Your task to perform on an android device: Go to eBay Image 0: 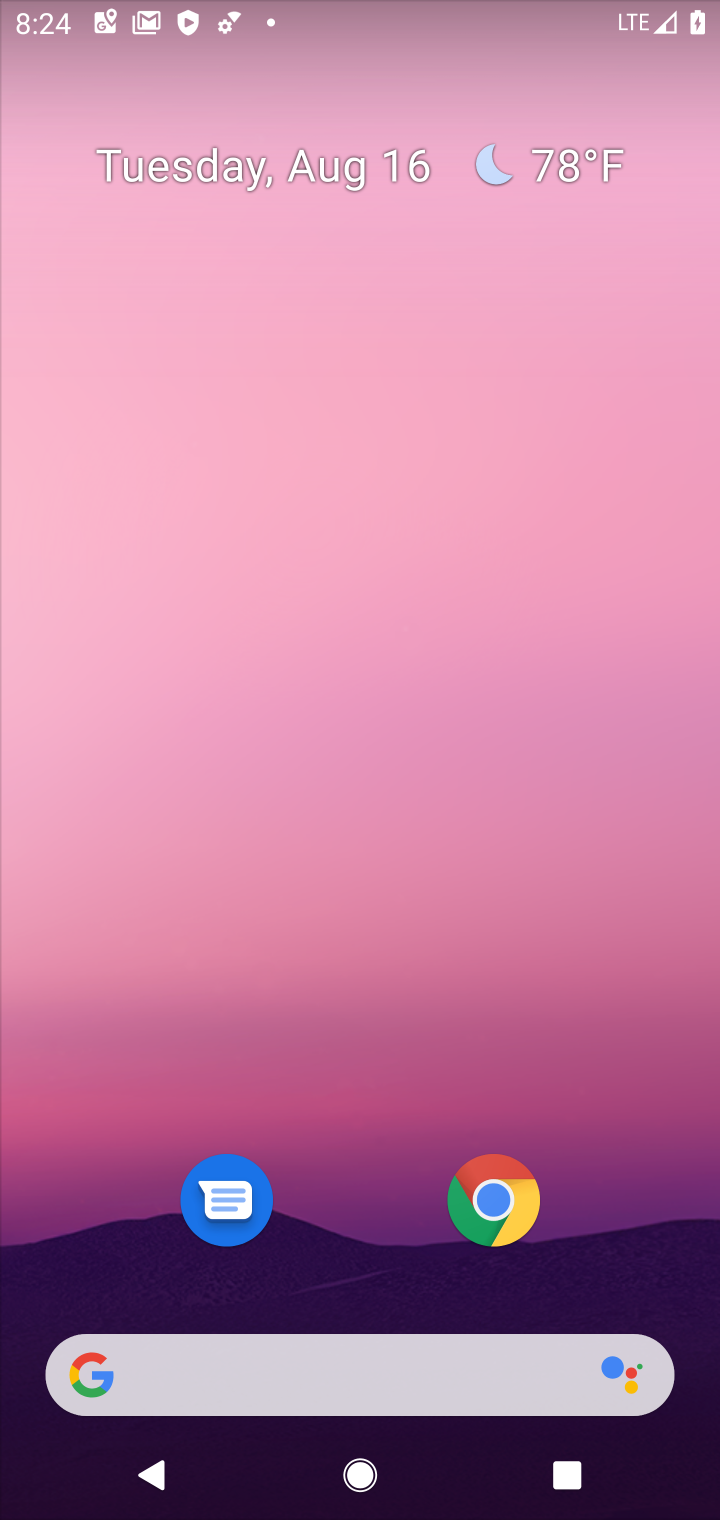
Step 0: click (493, 1198)
Your task to perform on an android device: Go to eBay Image 1: 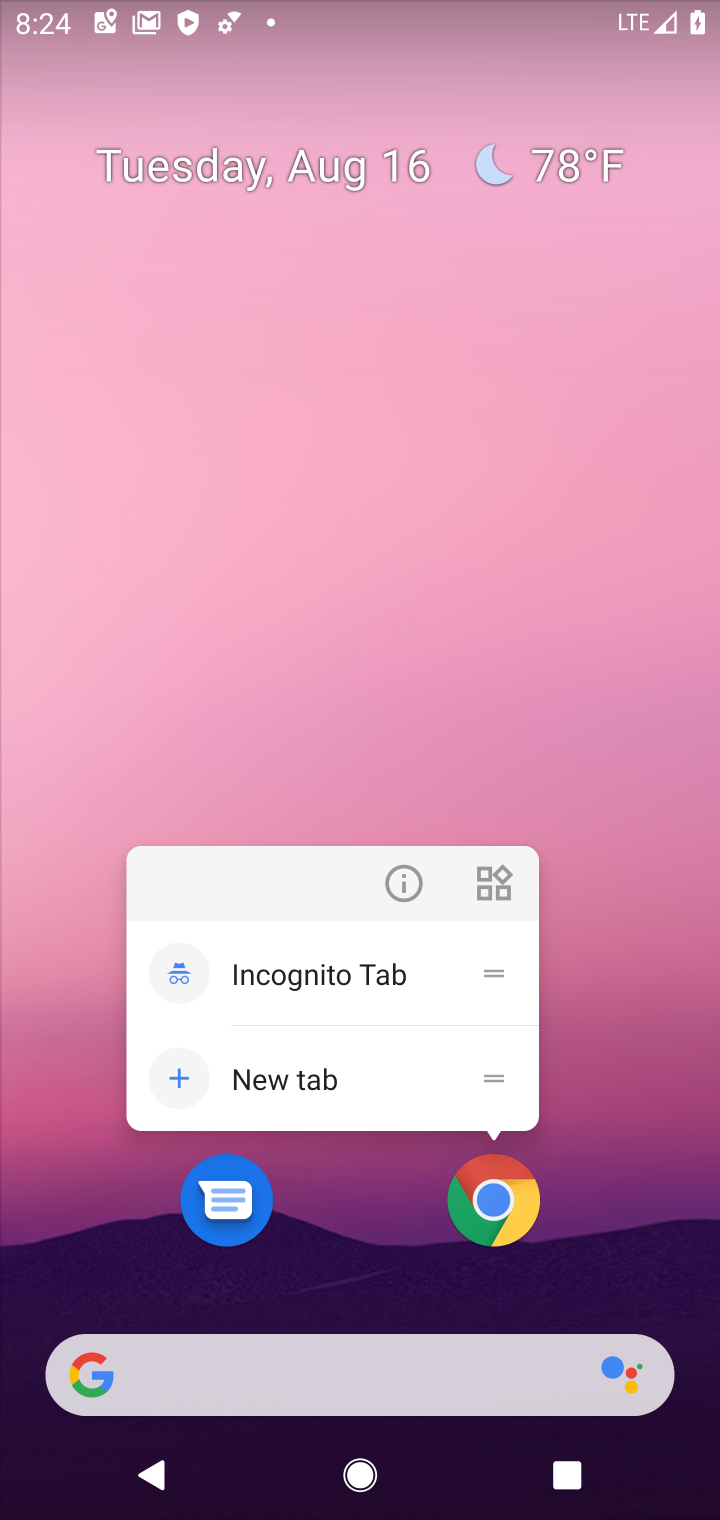
Step 1: click (488, 1204)
Your task to perform on an android device: Go to eBay Image 2: 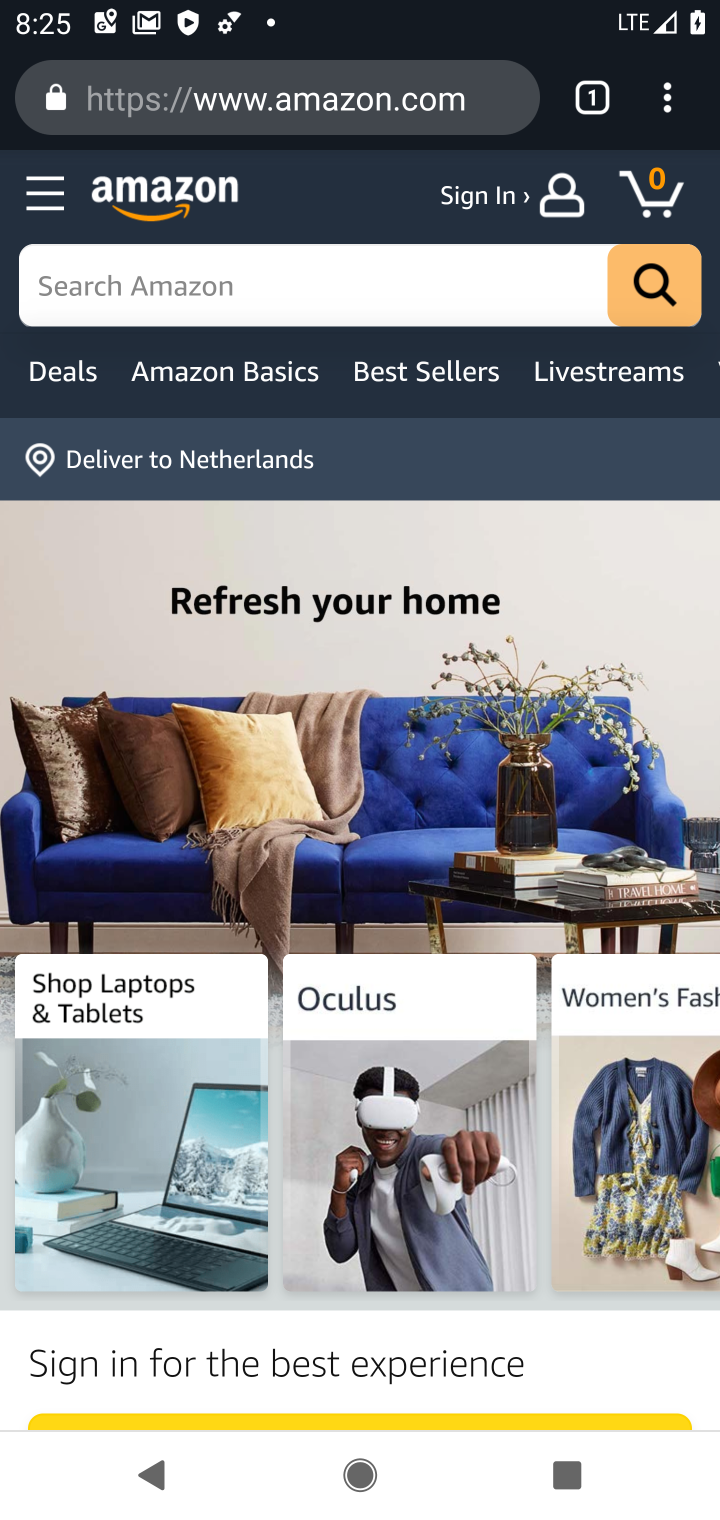
Step 2: click (509, 93)
Your task to perform on an android device: Go to eBay Image 3: 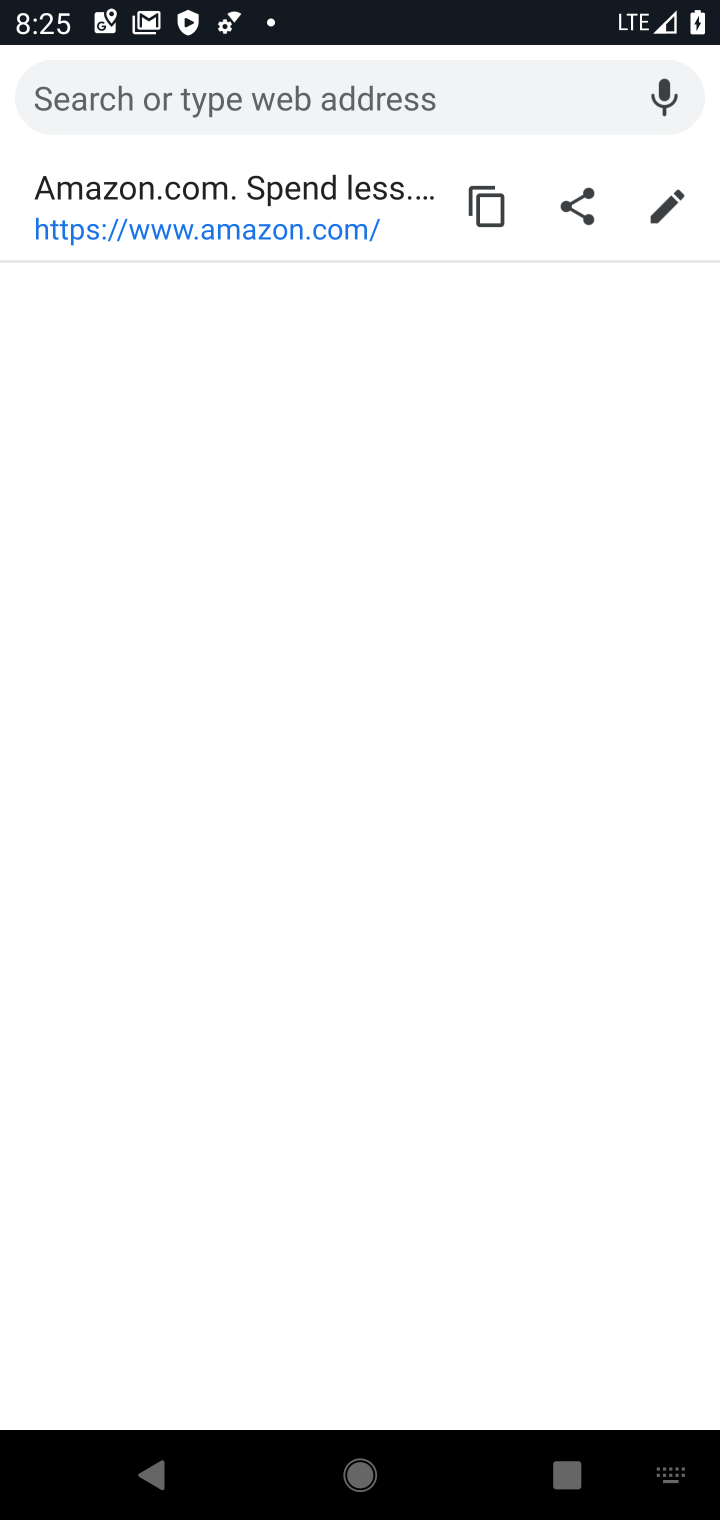
Step 3: type "eBay"
Your task to perform on an android device: Go to eBay Image 4: 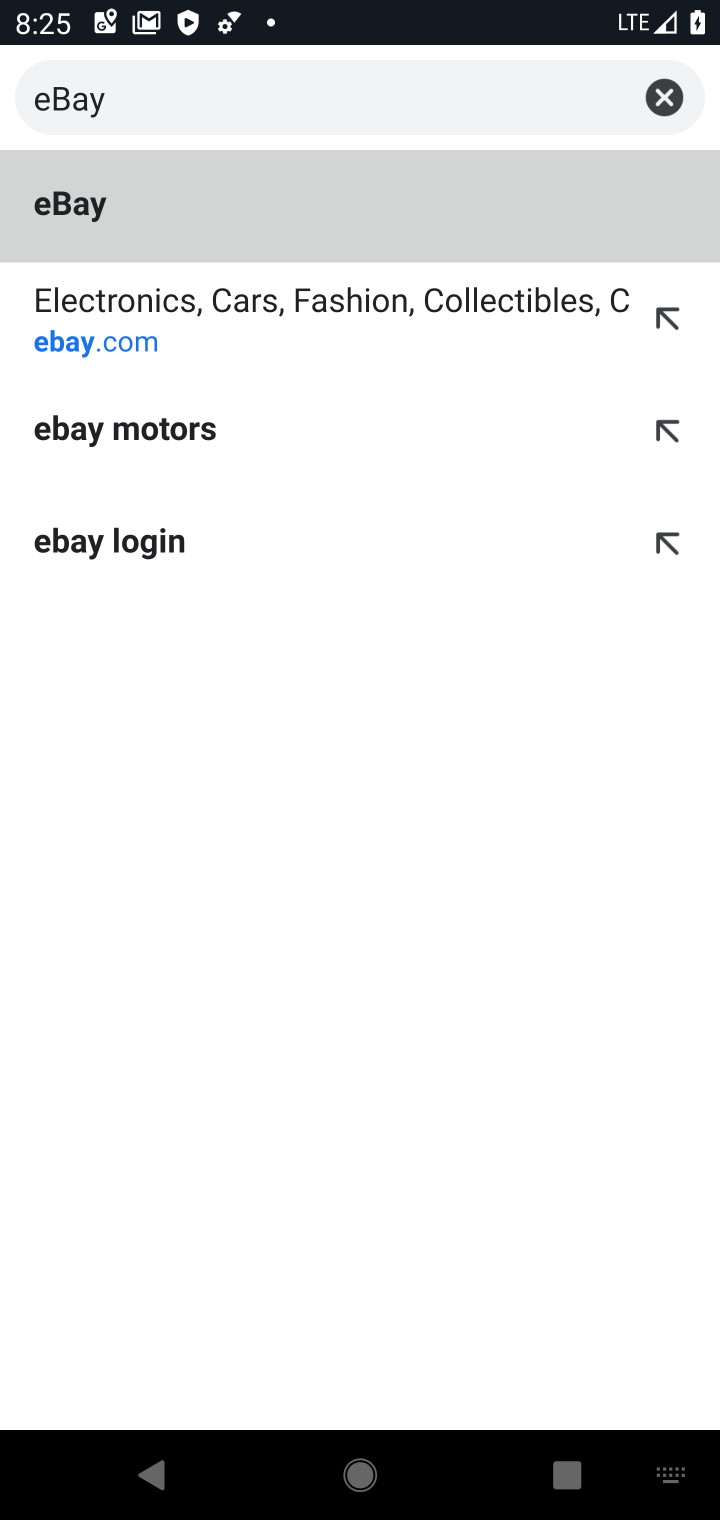
Step 4: click (170, 317)
Your task to perform on an android device: Go to eBay Image 5: 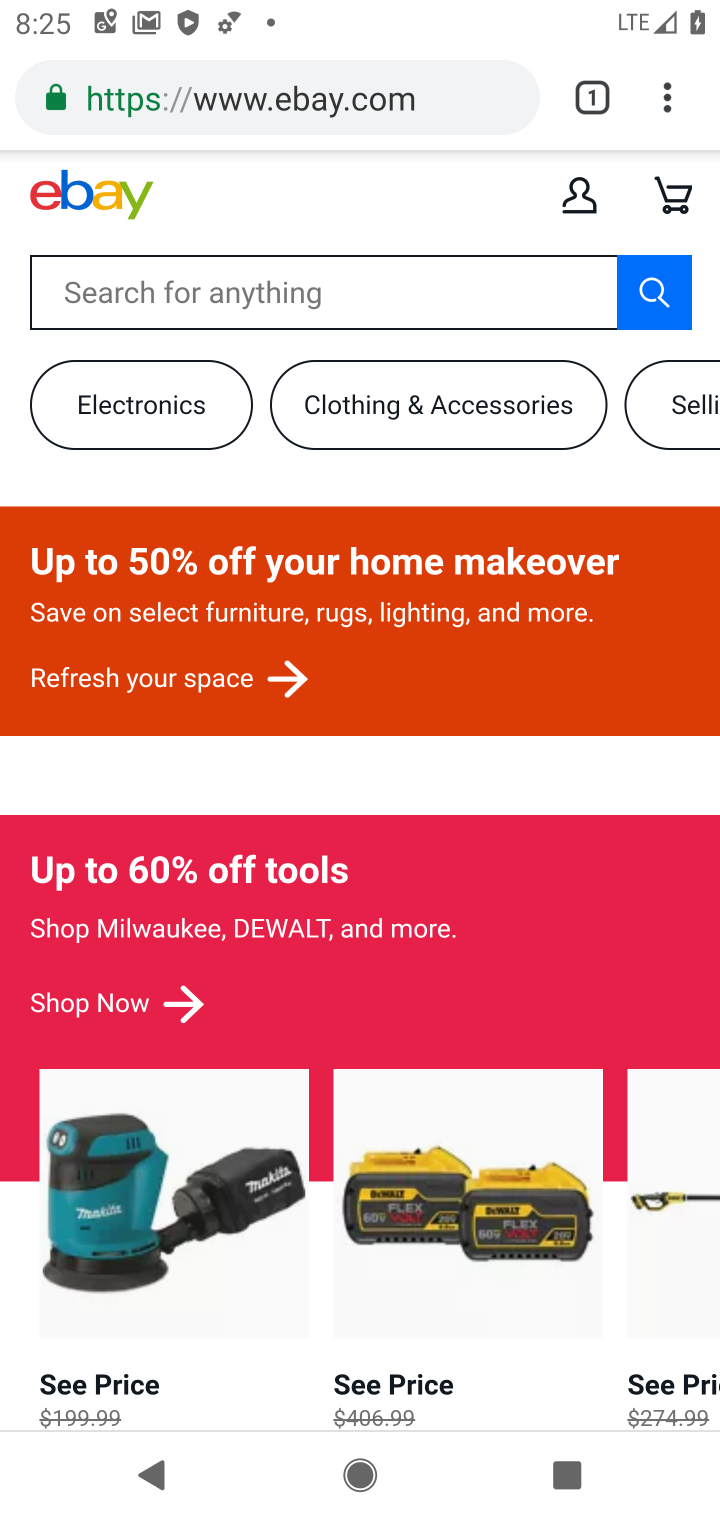
Step 5: drag from (442, 802) to (461, 166)
Your task to perform on an android device: Go to eBay Image 6: 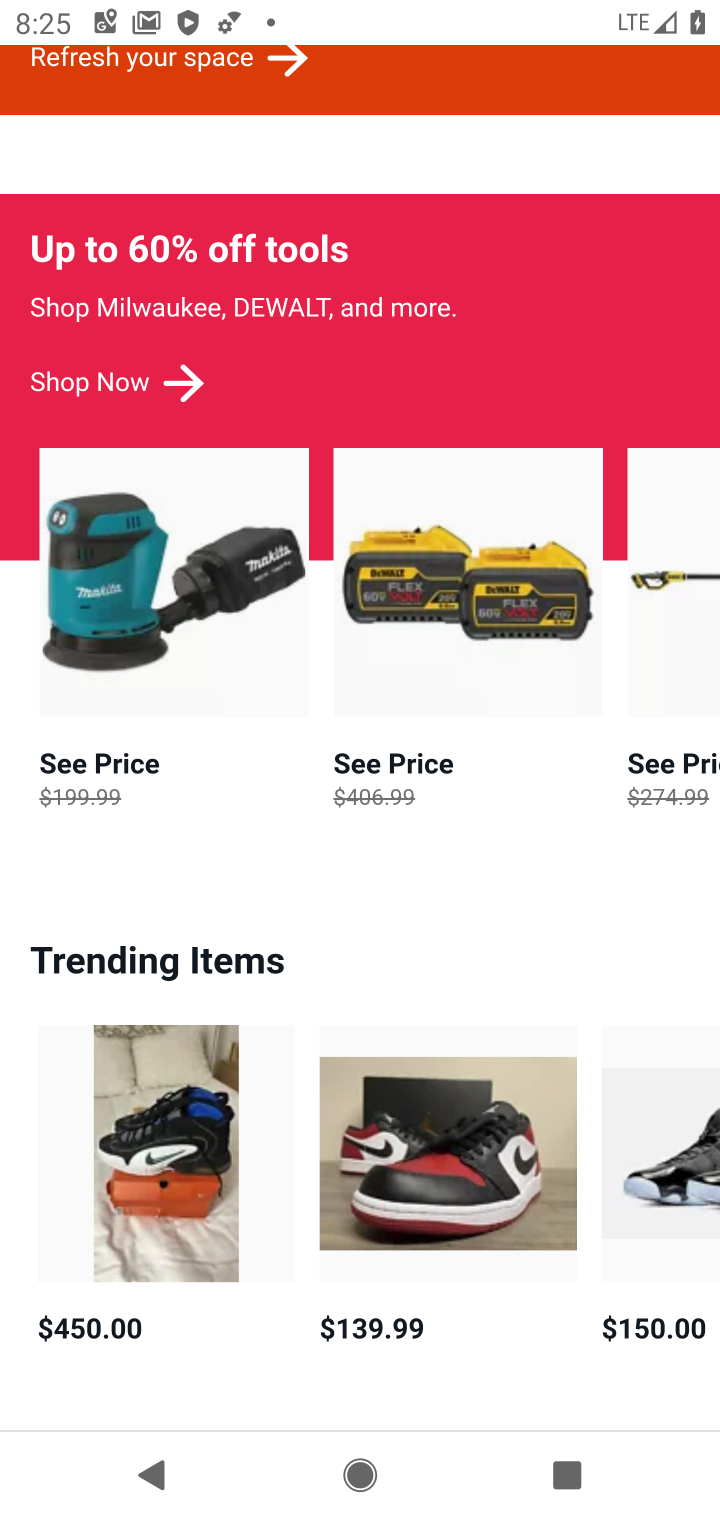
Step 6: drag from (483, 1029) to (487, 372)
Your task to perform on an android device: Go to eBay Image 7: 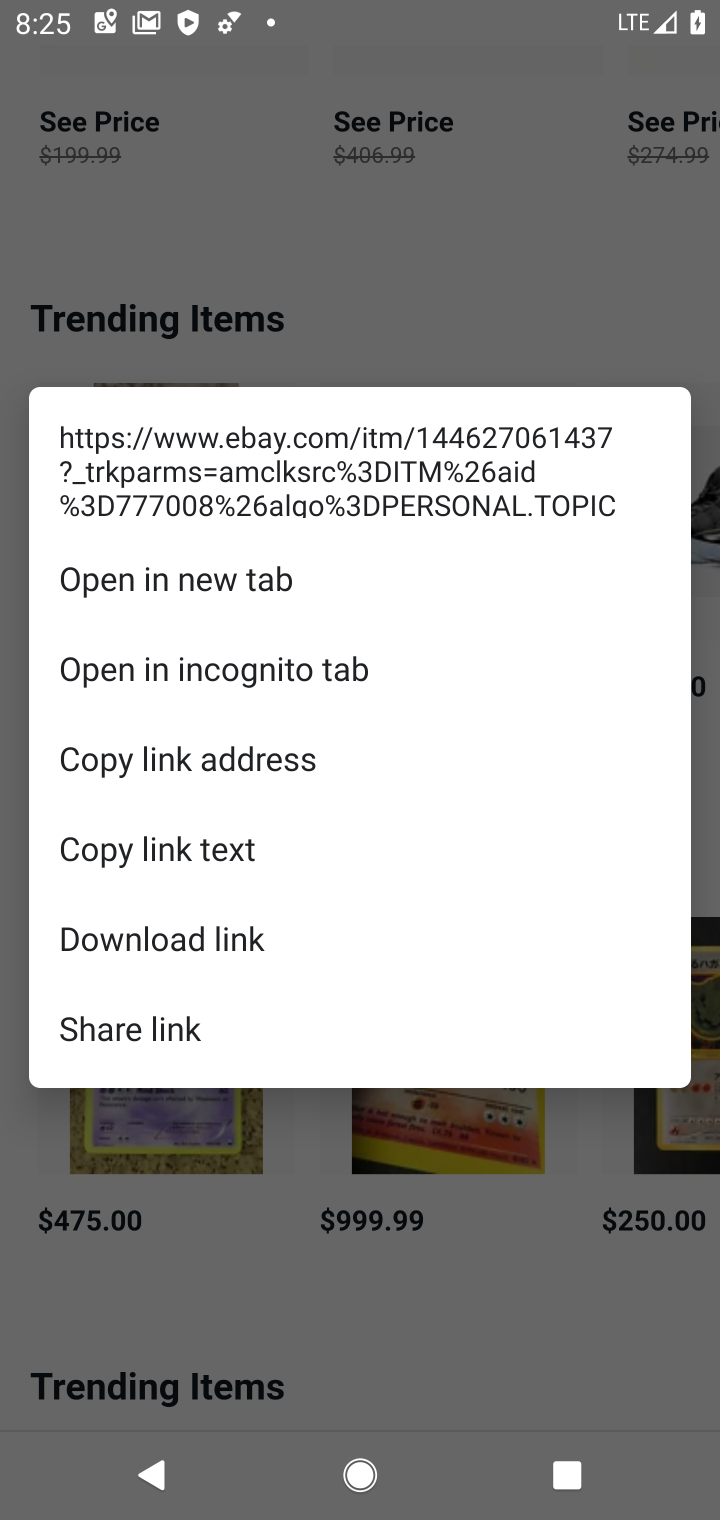
Step 7: click (484, 1255)
Your task to perform on an android device: Go to eBay Image 8: 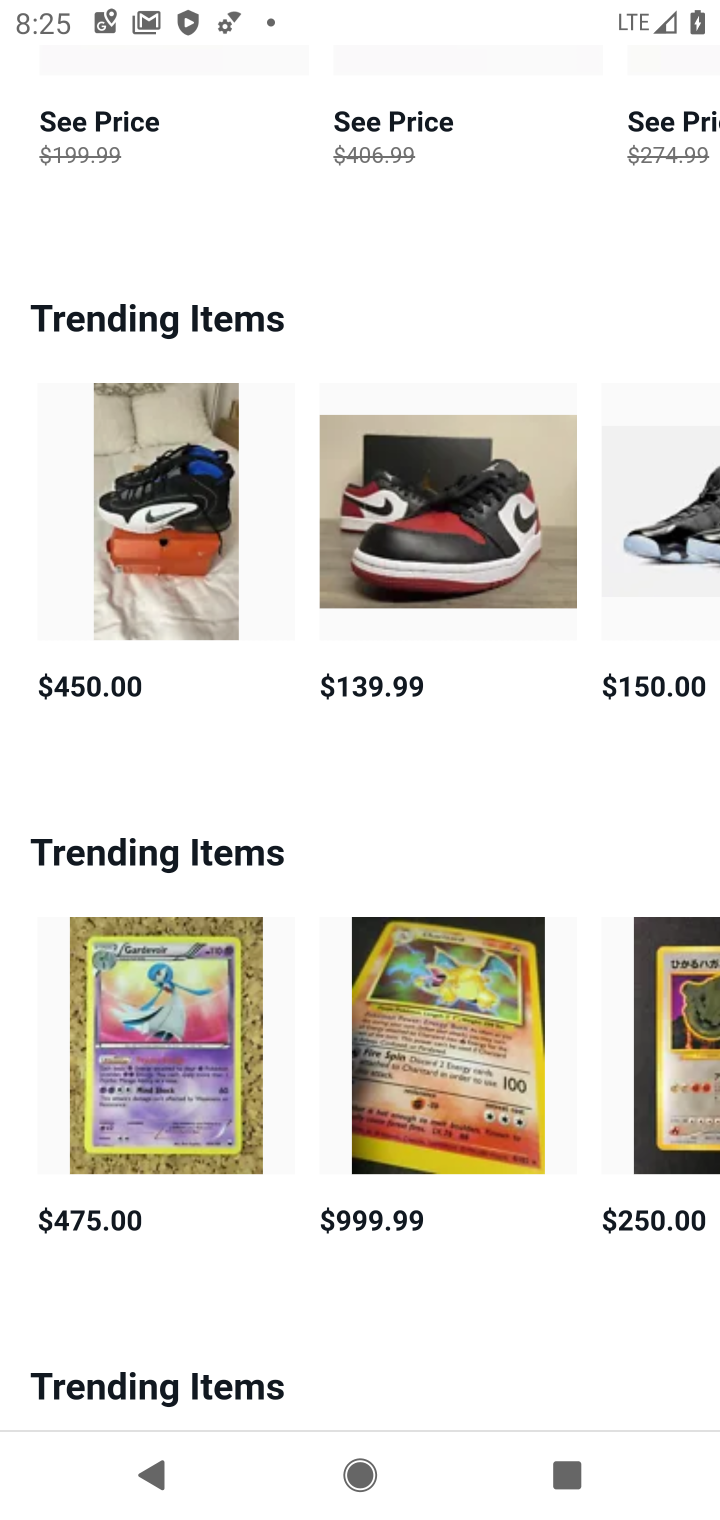
Step 8: task complete